Your task to perform on an android device: star an email in the gmail app Image 0: 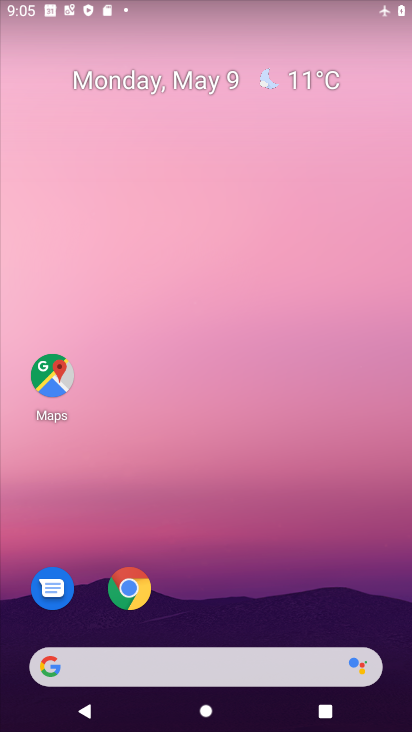
Step 0: drag from (194, 669) to (281, 137)
Your task to perform on an android device: star an email in the gmail app Image 1: 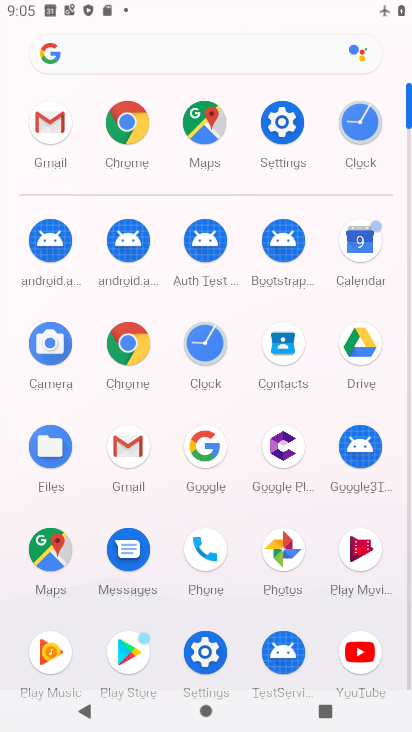
Step 1: click (50, 135)
Your task to perform on an android device: star an email in the gmail app Image 2: 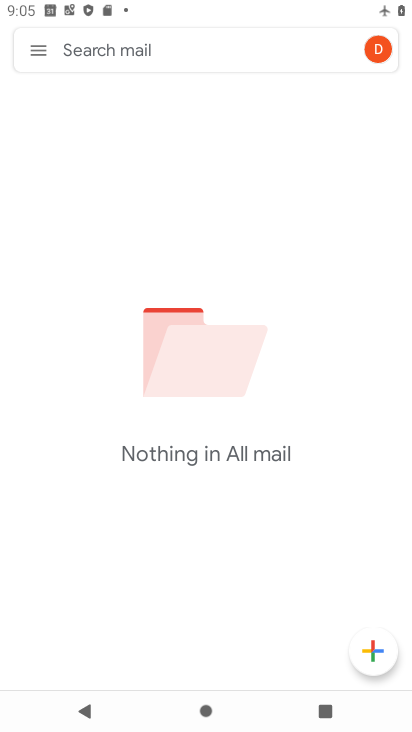
Step 2: task complete